Your task to perform on an android device: Go to network settings Image 0: 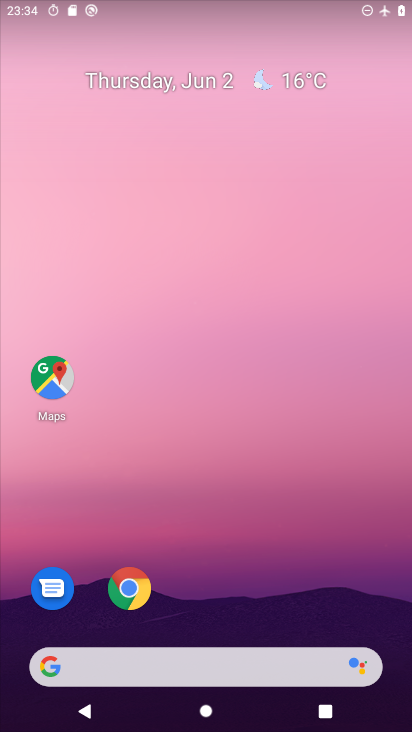
Step 0: drag from (262, 530) to (262, 34)
Your task to perform on an android device: Go to network settings Image 1: 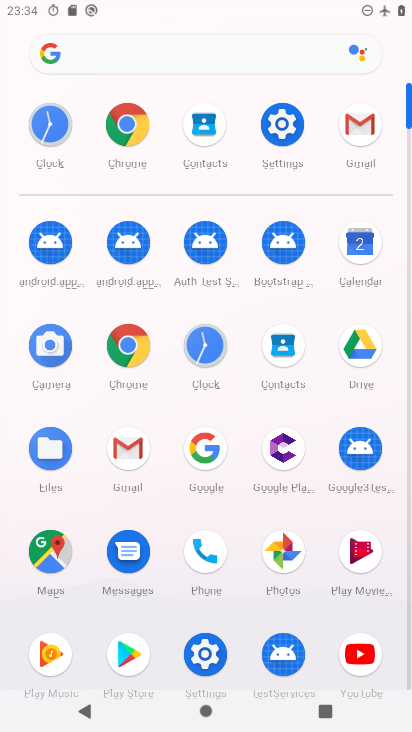
Step 1: click (274, 127)
Your task to perform on an android device: Go to network settings Image 2: 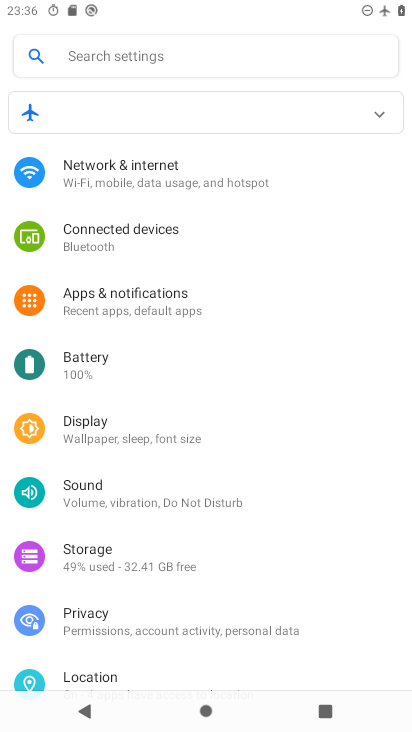
Step 2: click (77, 174)
Your task to perform on an android device: Go to network settings Image 3: 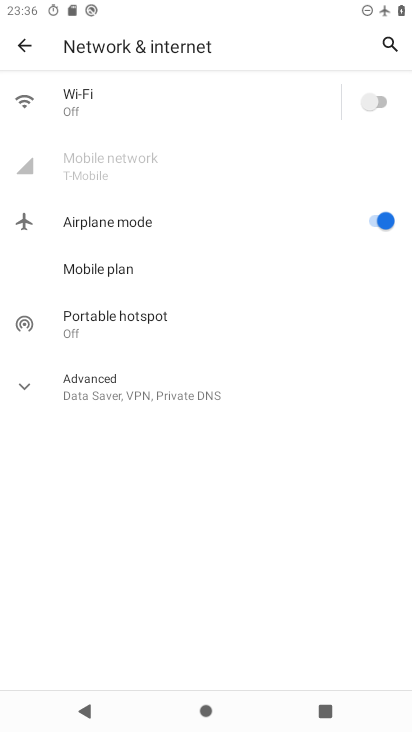
Step 3: task complete